Your task to perform on an android device: toggle show notifications on the lock screen Image 0: 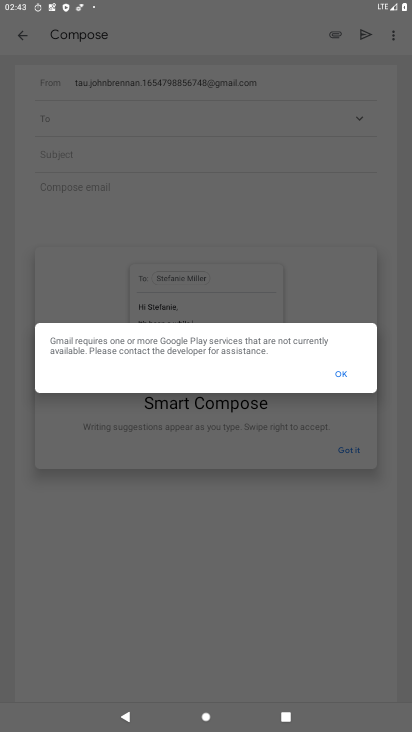
Step 0: press home button
Your task to perform on an android device: toggle show notifications on the lock screen Image 1: 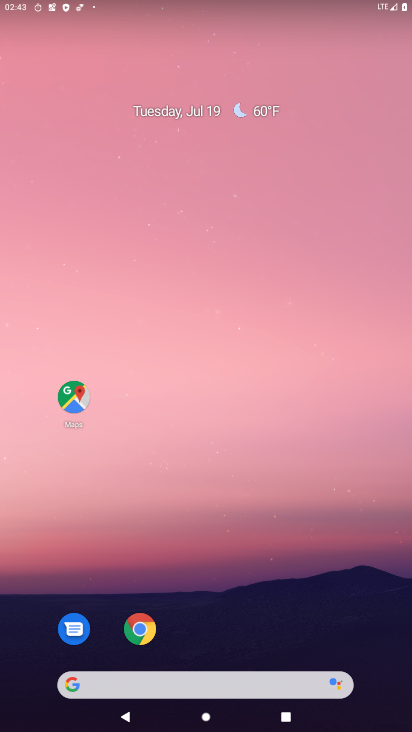
Step 1: drag from (209, 612) to (263, 168)
Your task to perform on an android device: toggle show notifications on the lock screen Image 2: 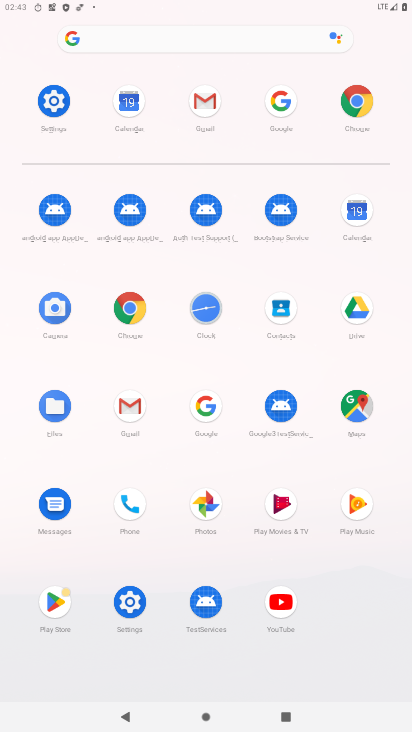
Step 2: click (63, 105)
Your task to perform on an android device: toggle show notifications on the lock screen Image 3: 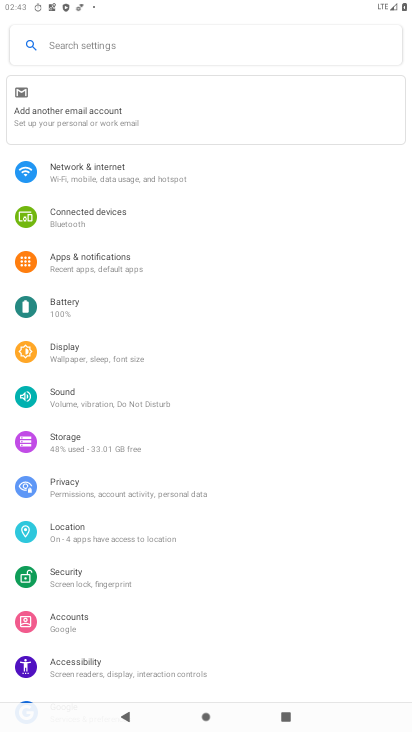
Step 3: click (158, 269)
Your task to perform on an android device: toggle show notifications on the lock screen Image 4: 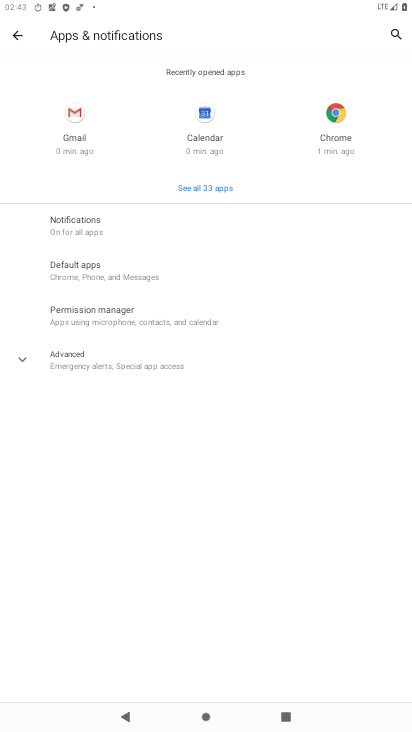
Step 4: click (105, 239)
Your task to perform on an android device: toggle show notifications on the lock screen Image 5: 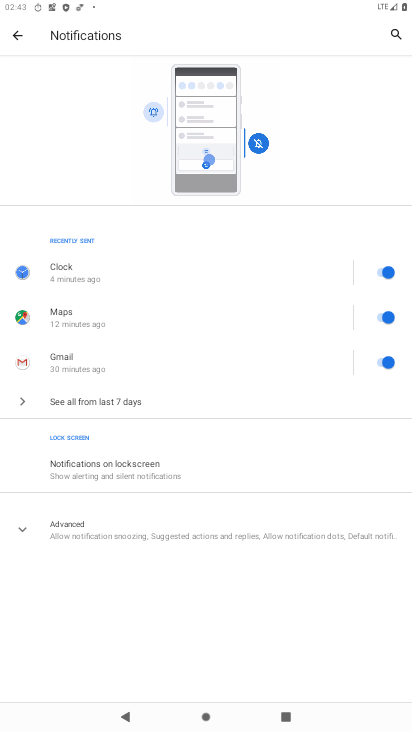
Step 5: click (171, 475)
Your task to perform on an android device: toggle show notifications on the lock screen Image 6: 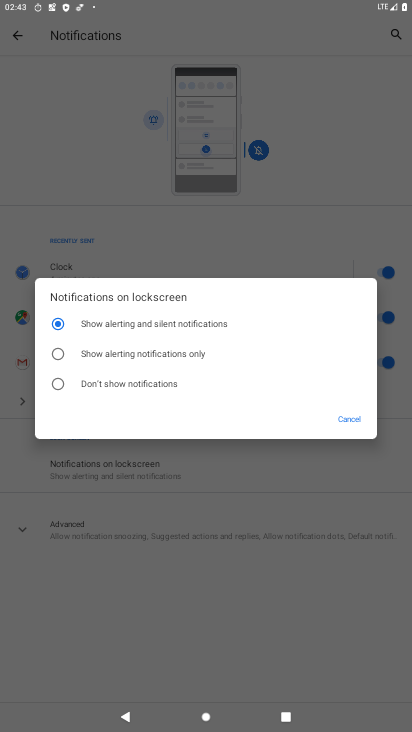
Step 6: click (76, 384)
Your task to perform on an android device: toggle show notifications on the lock screen Image 7: 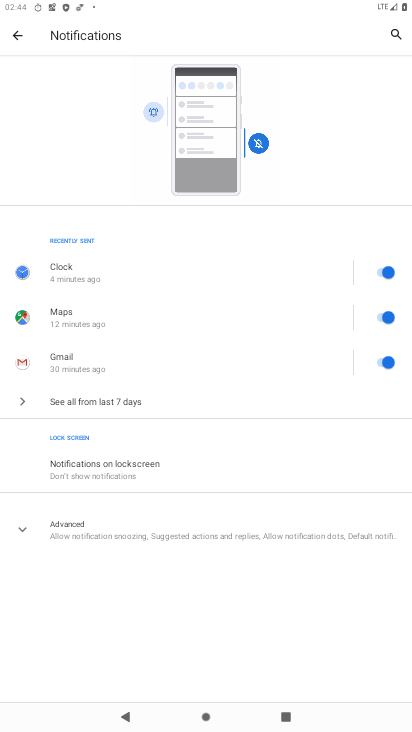
Step 7: task complete